Your task to perform on an android device: find photos in the google photos app Image 0: 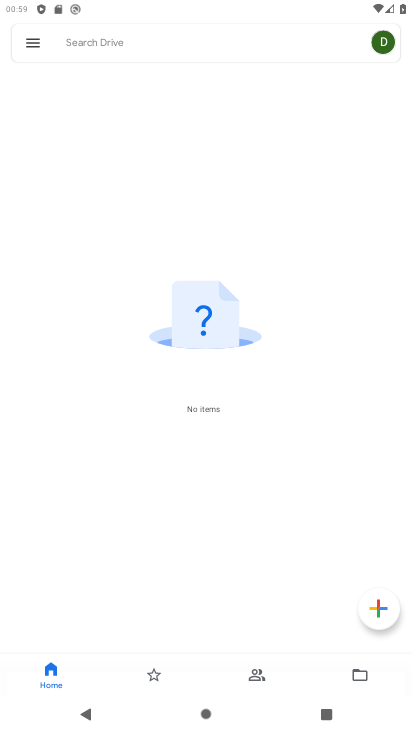
Step 0: press home button
Your task to perform on an android device: find photos in the google photos app Image 1: 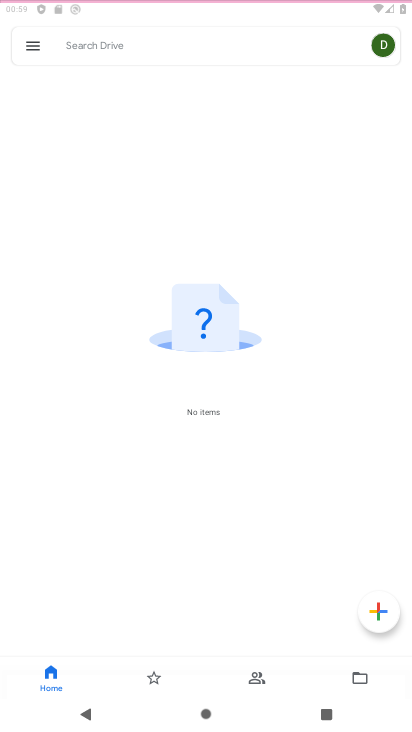
Step 1: drag from (116, 727) to (299, 201)
Your task to perform on an android device: find photos in the google photos app Image 2: 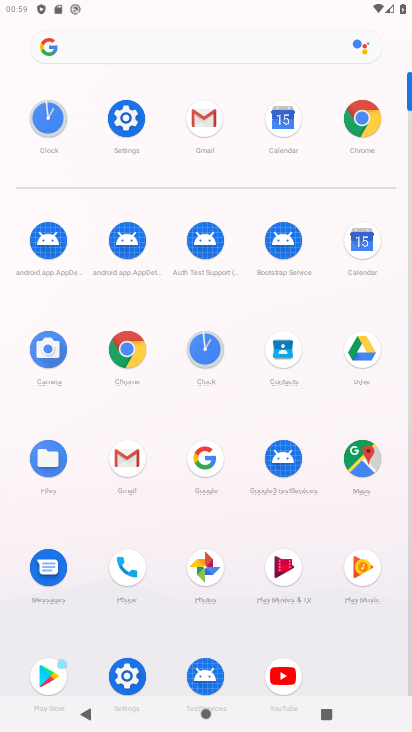
Step 2: click (195, 587)
Your task to perform on an android device: find photos in the google photos app Image 3: 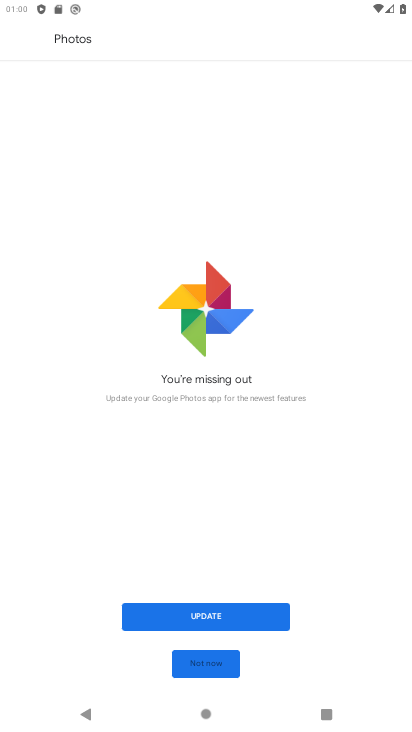
Step 3: click (206, 627)
Your task to perform on an android device: find photos in the google photos app Image 4: 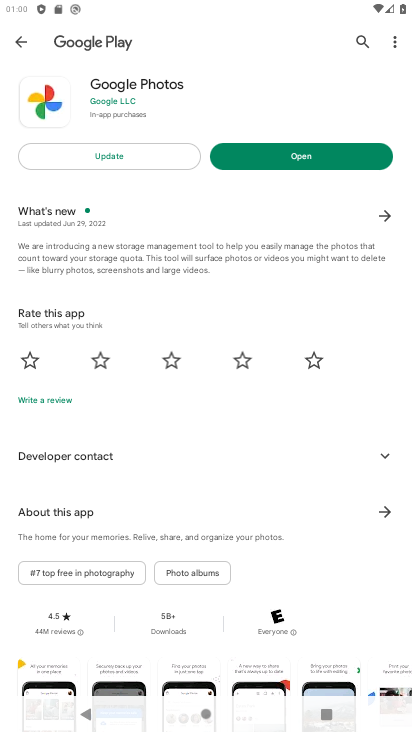
Step 4: click (118, 149)
Your task to perform on an android device: find photos in the google photos app Image 5: 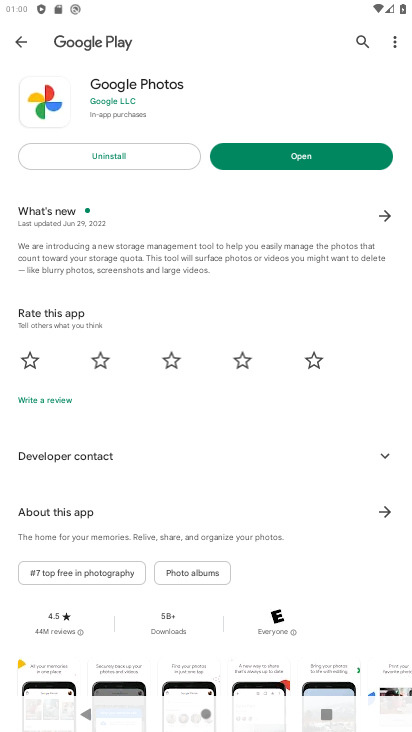
Step 5: click (264, 148)
Your task to perform on an android device: find photos in the google photos app Image 6: 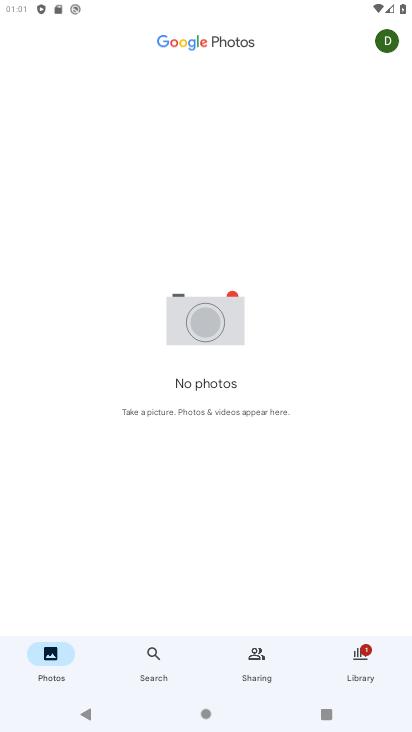
Step 6: task complete